Your task to perform on an android device: Open wifi settings Image 0: 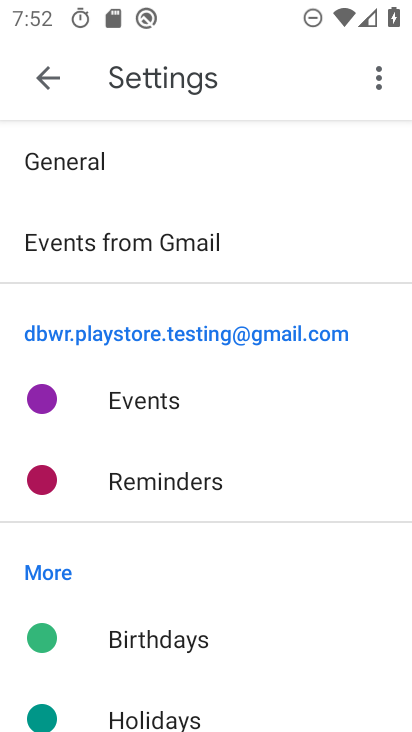
Step 0: press home button
Your task to perform on an android device: Open wifi settings Image 1: 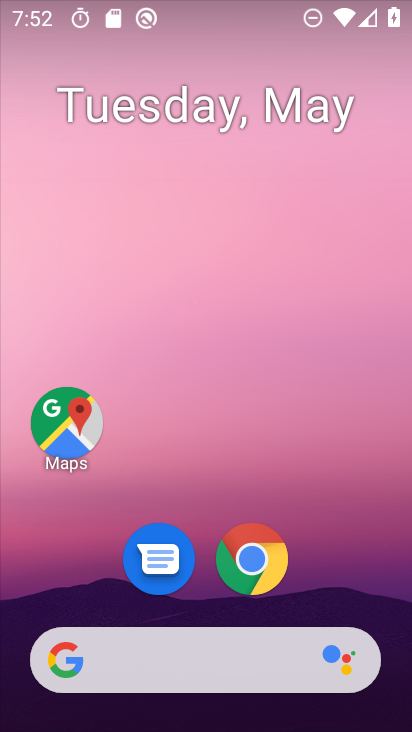
Step 1: drag from (372, 398) to (277, 25)
Your task to perform on an android device: Open wifi settings Image 2: 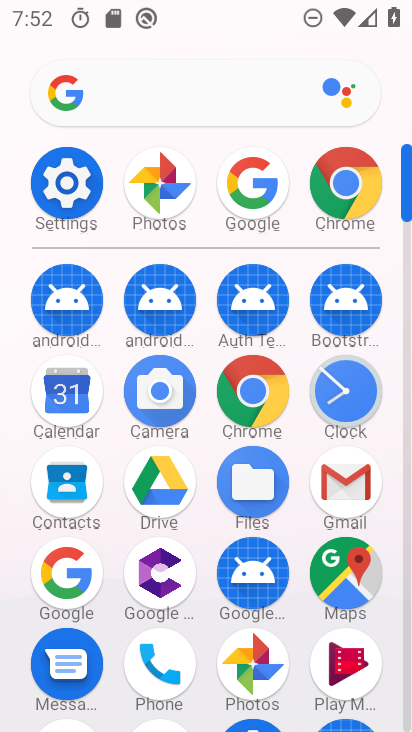
Step 2: click (61, 169)
Your task to perform on an android device: Open wifi settings Image 3: 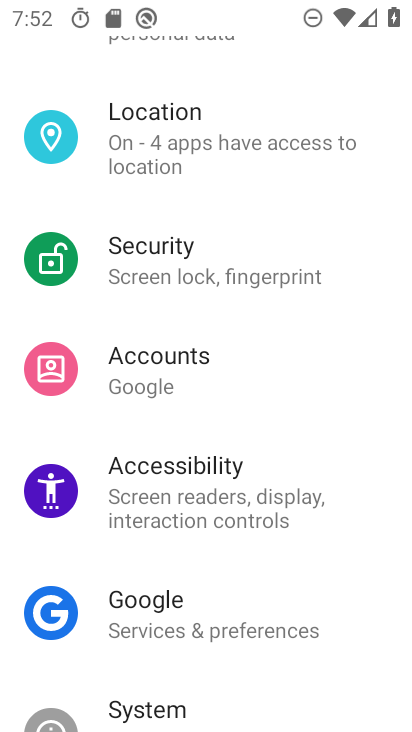
Step 3: drag from (251, 124) to (257, 678)
Your task to perform on an android device: Open wifi settings Image 4: 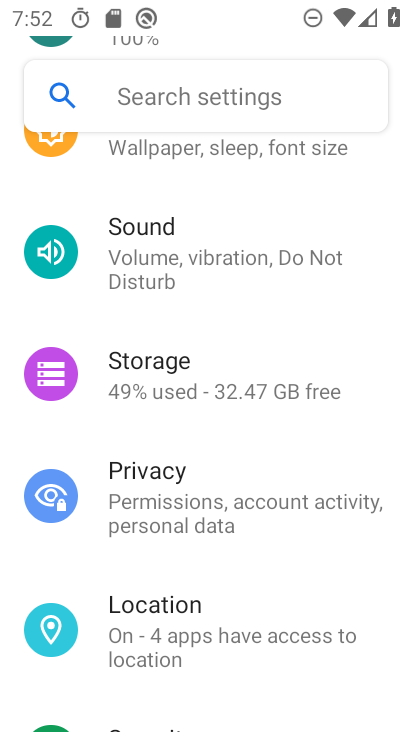
Step 4: drag from (187, 174) to (207, 659)
Your task to perform on an android device: Open wifi settings Image 5: 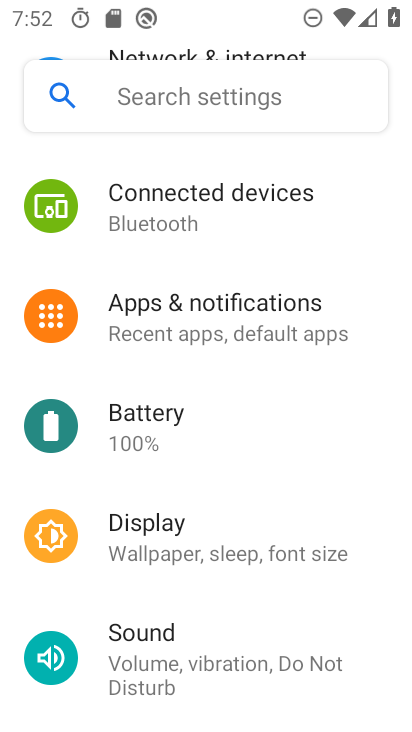
Step 5: drag from (194, 194) to (218, 675)
Your task to perform on an android device: Open wifi settings Image 6: 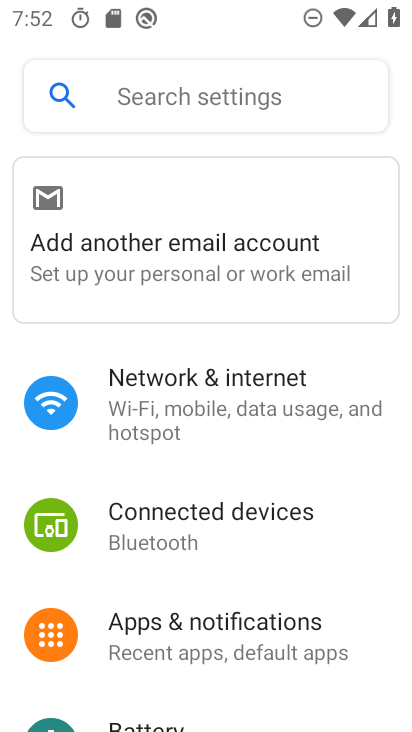
Step 6: click (208, 412)
Your task to perform on an android device: Open wifi settings Image 7: 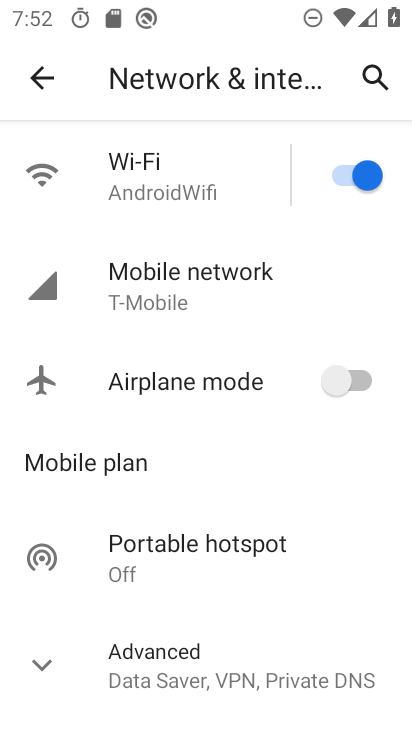
Step 7: click (147, 181)
Your task to perform on an android device: Open wifi settings Image 8: 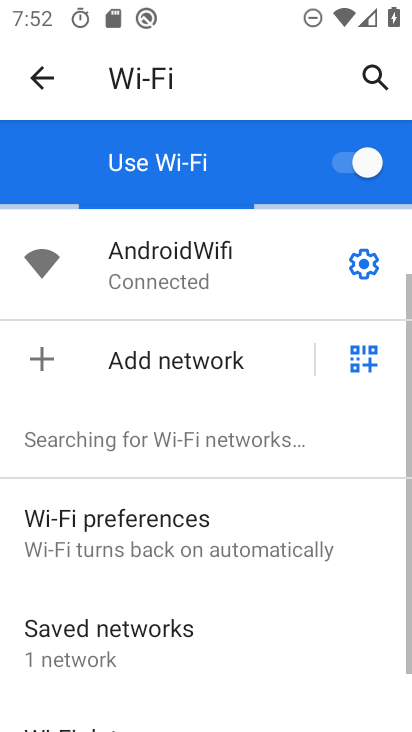
Step 8: task complete